Your task to perform on an android device: open a bookmark in the chrome app Image 0: 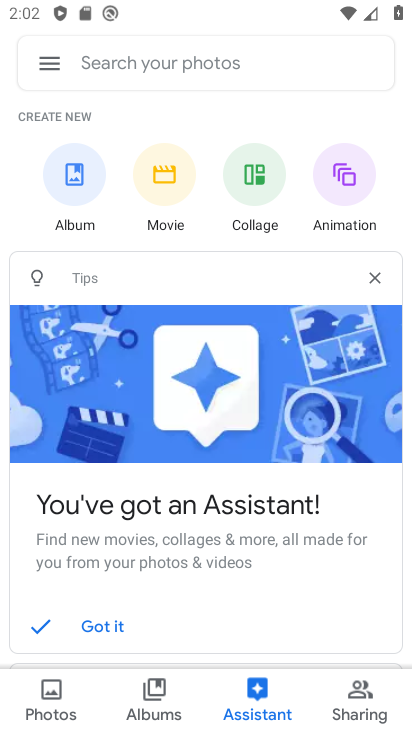
Step 0: press home button
Your task to perform on an android device: open a bookmark in the chrome app Image 1: 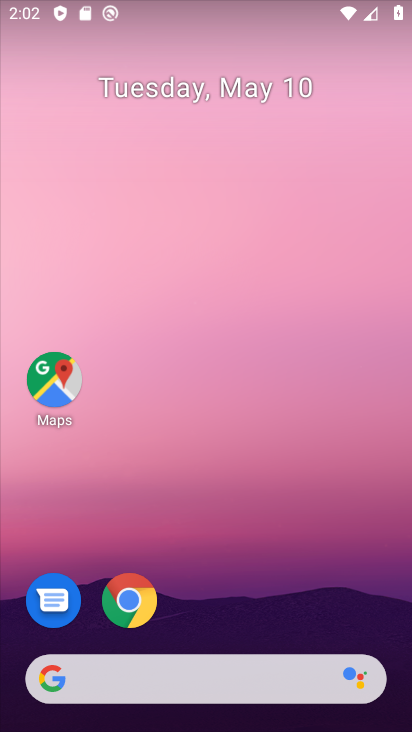
Step 1: drag from (210, 625) to (212, 139)
Your task to perform on an android device: open a bookmark in the chrome app Image 2: 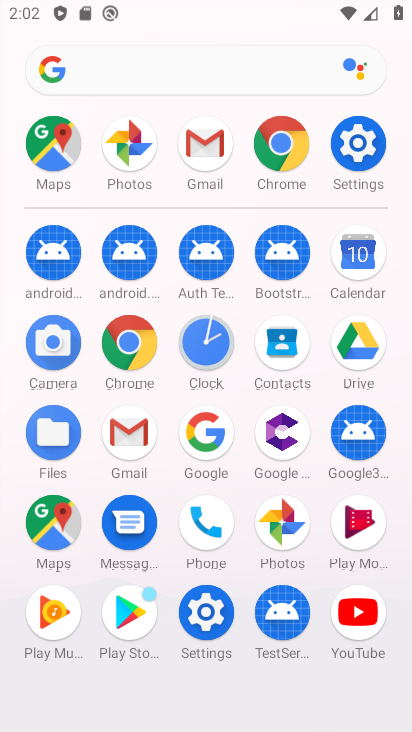
Step 2: click (290, 156)
Your task to perform on an android device: open a bookmark in the chrome app Image 3: 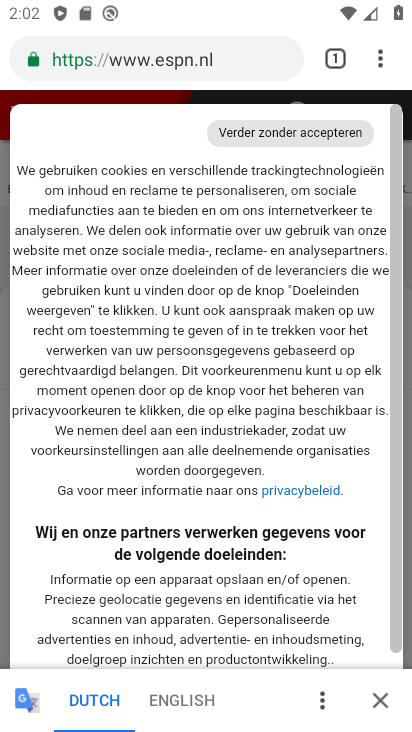
Step 3: click (392, 63)
Your task to perform on an android device: open a bookmark in the chrome app Image 4: 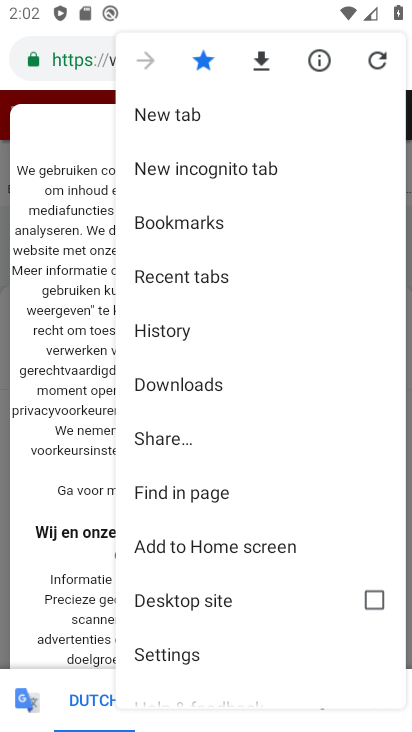
Step 4: click (211, 223)
Your task to perform on an android device: open a bookmark in the chrome app Image 5: 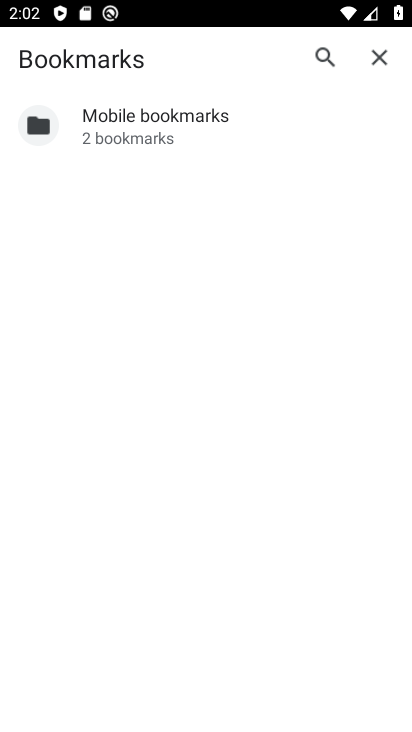
Step 5: click (227, 135)
Your task to perform on an android device: open a bookmark in the chrome app Image 6: 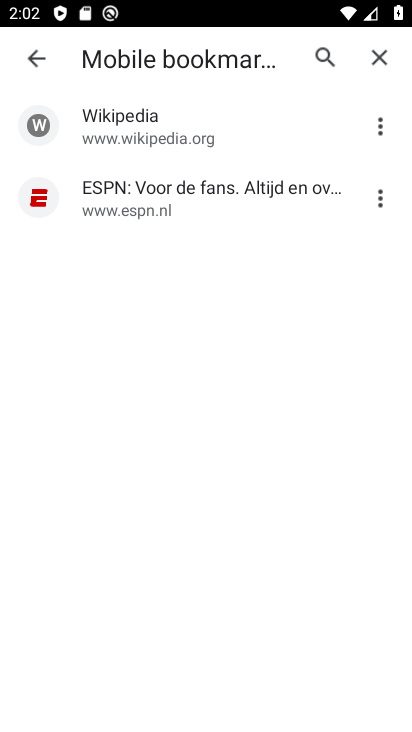
Step 6: click (208, 197)
Your task to perform on an android device: open a bookmark in the chrome app Image 7: 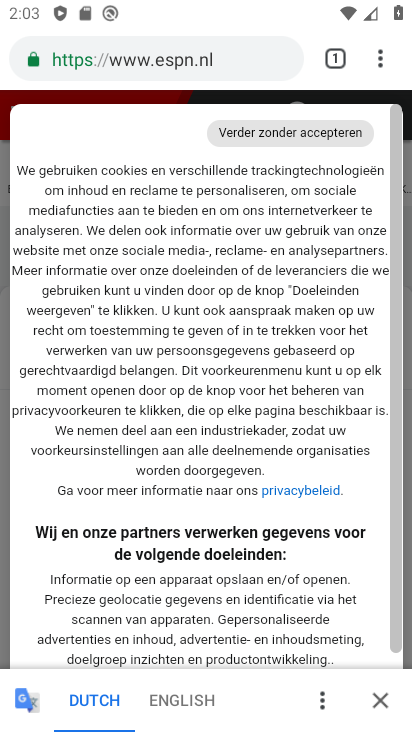
Step 7: task complete